Your task to perform on an android device: What is the capital of Switzerland? Image 0: 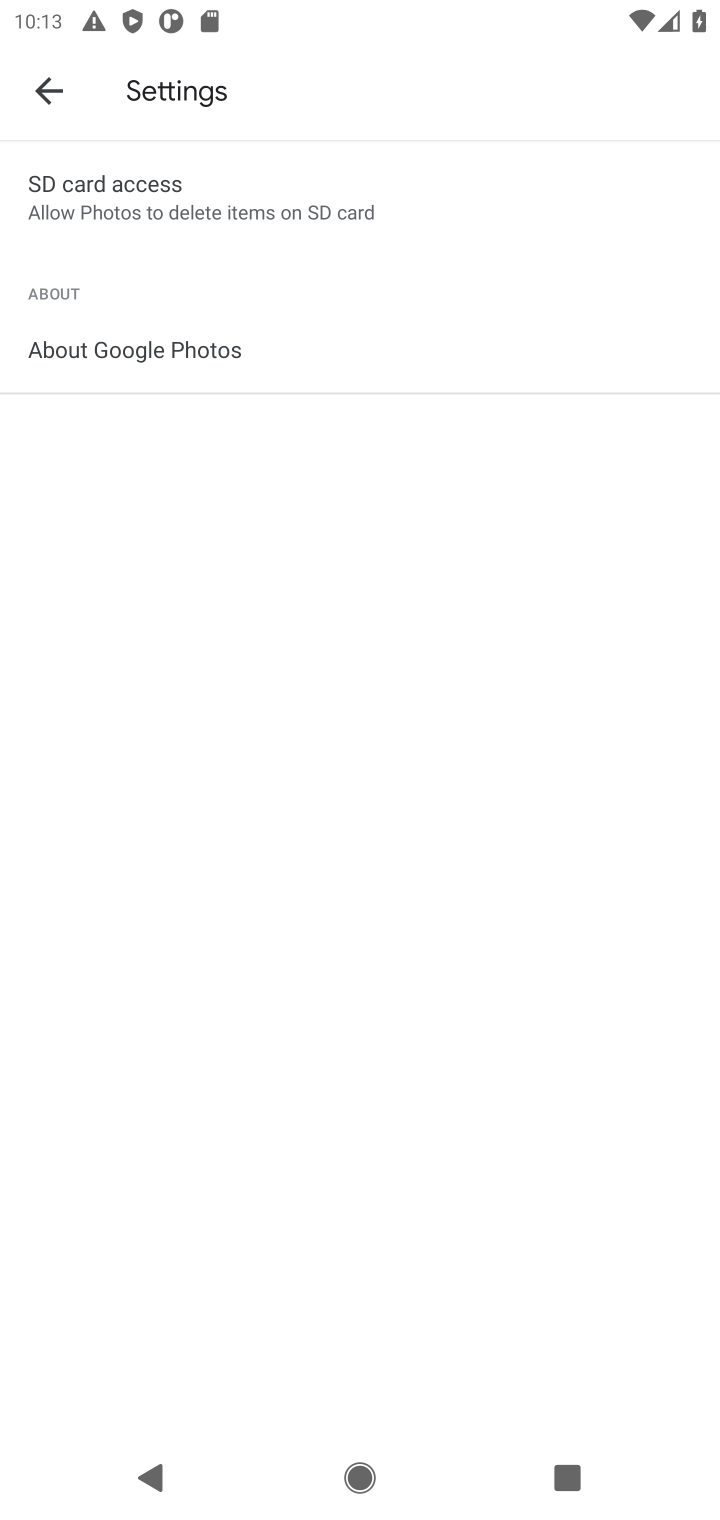
Step 0: press home button
Your task to perform on an android device: What is the capital of Switzerland? Image 1: 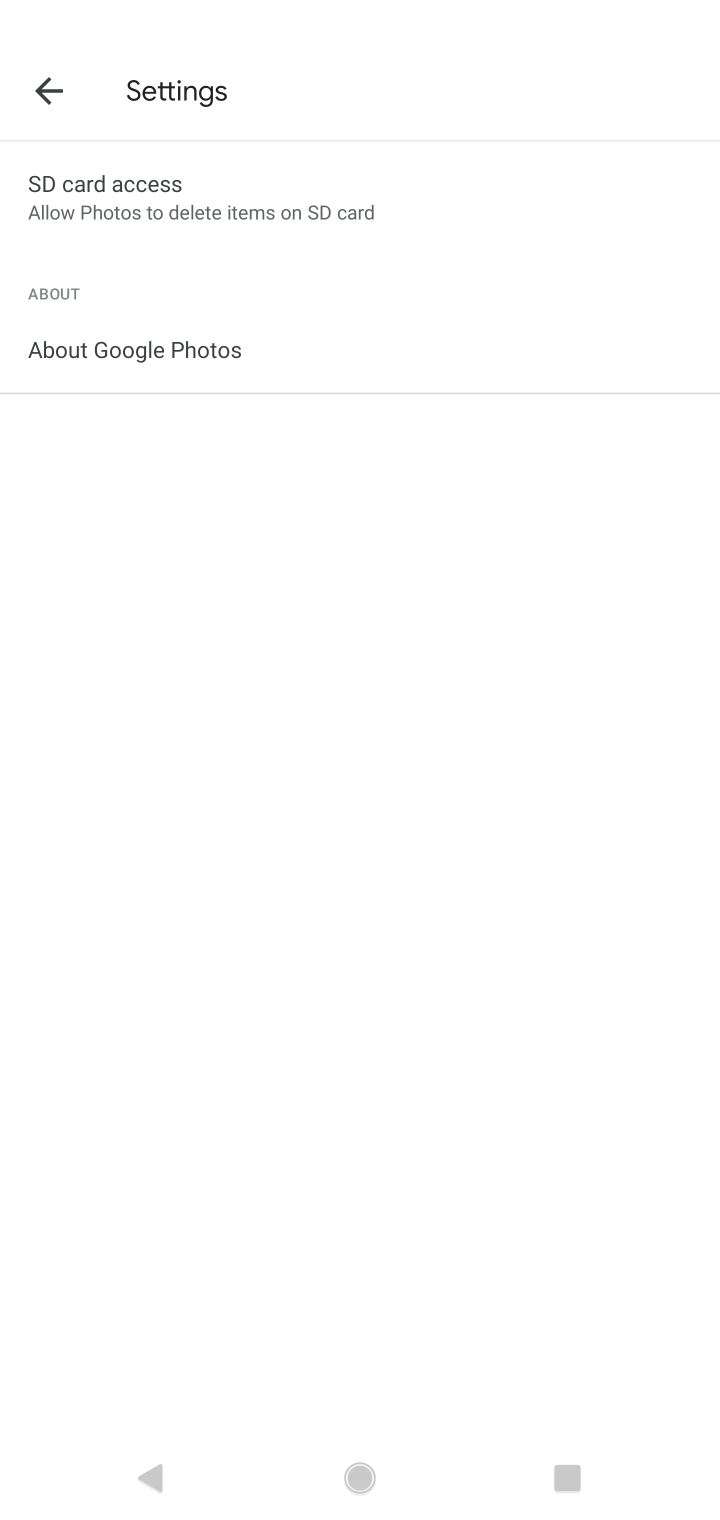
Step 1: press home button
Your task to perform on an android device: What is the capital of Switzerland? Image 2: 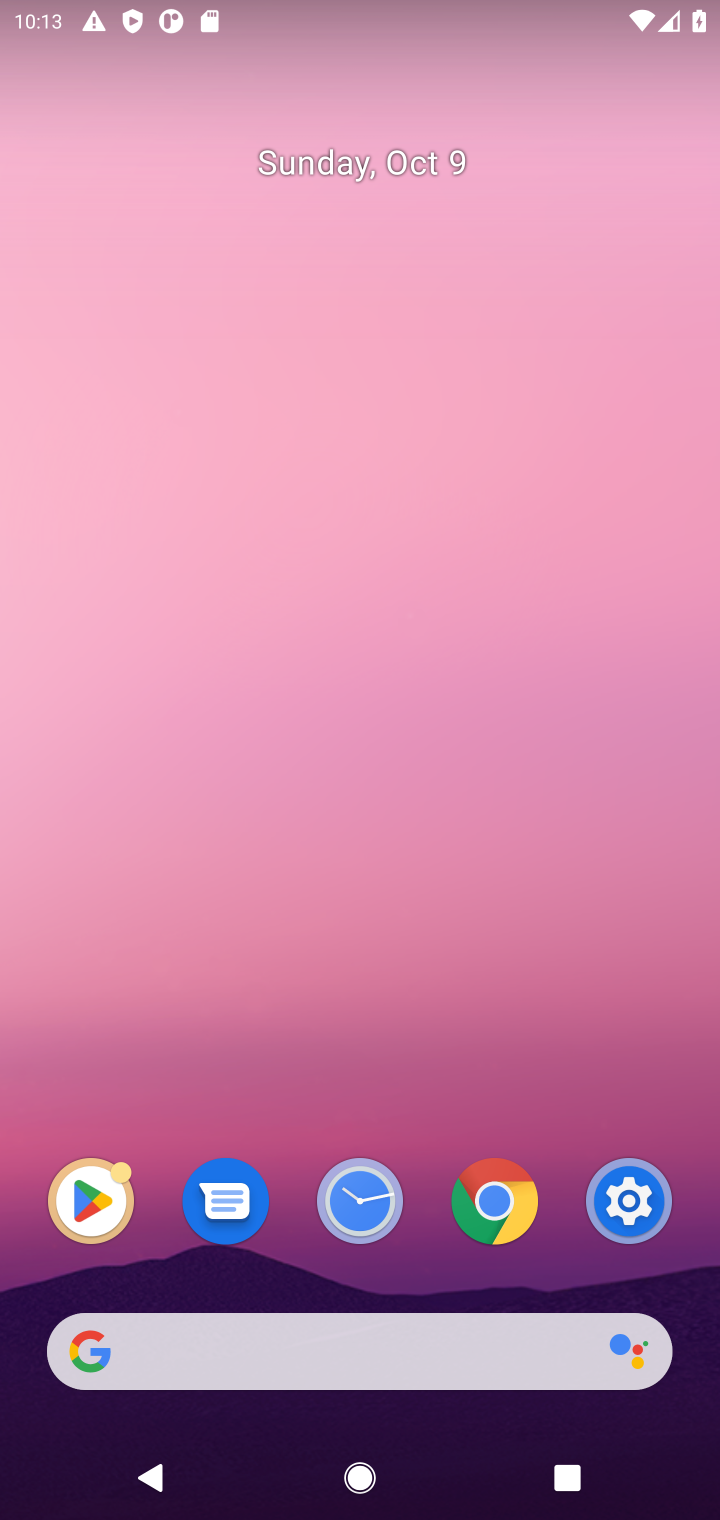
Step 2: click (498, 1203)
Your task to perform on an android device: What is the capital of Switzerland? Image 3: 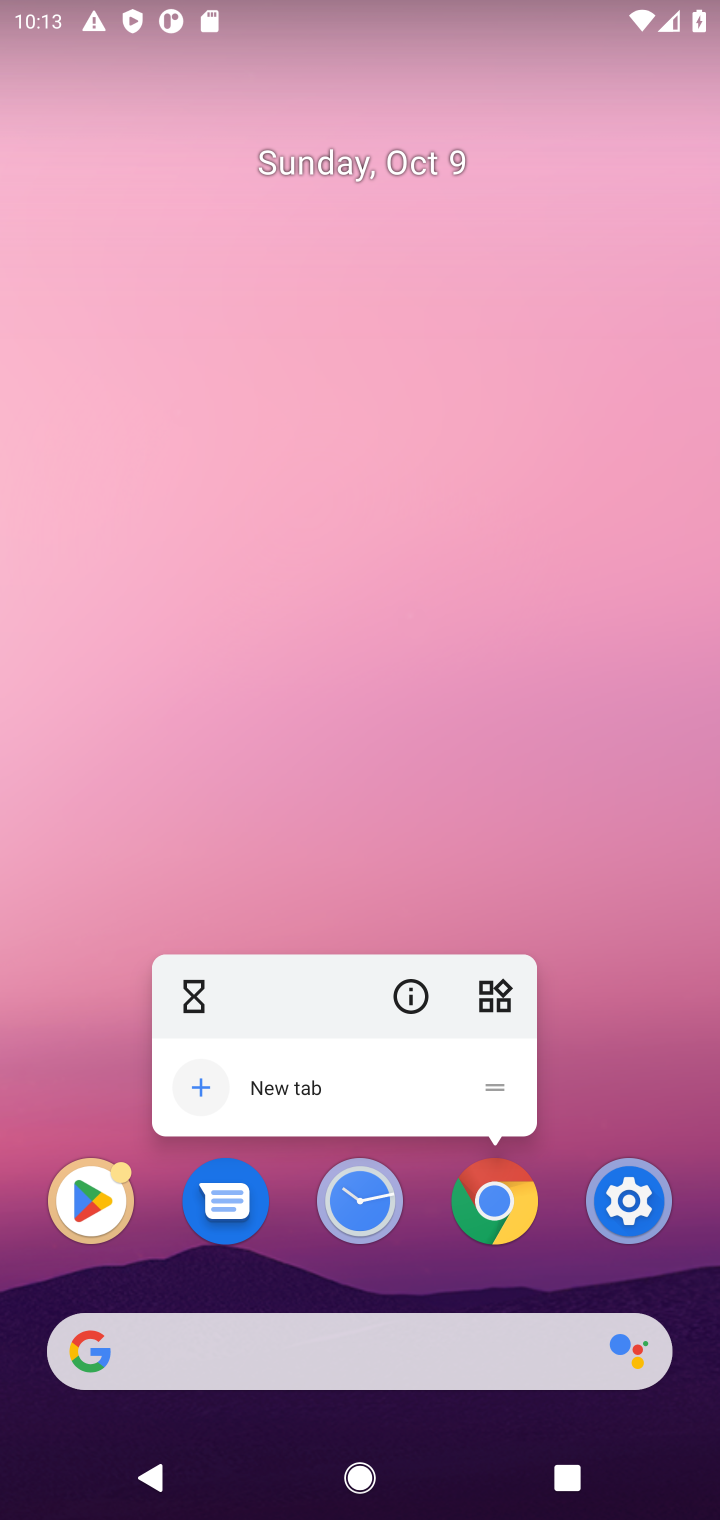
Step 3: click (498, 1203)
Your task to perform on an android device: What is the capital of Switzerland? Image 4: 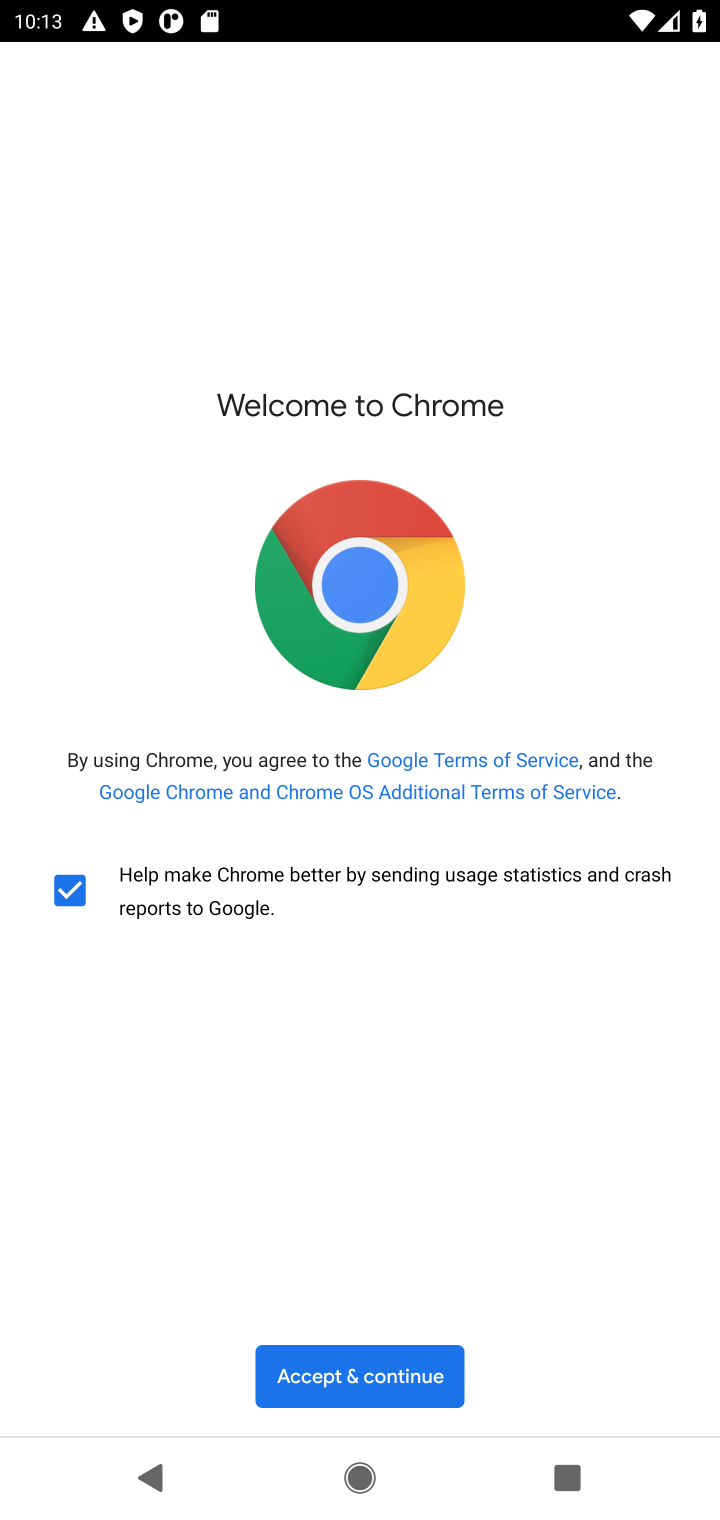
Step 4: click (343, 1392)
Your task to perform on an android device: What is the capital of Switzerland? Image 5: 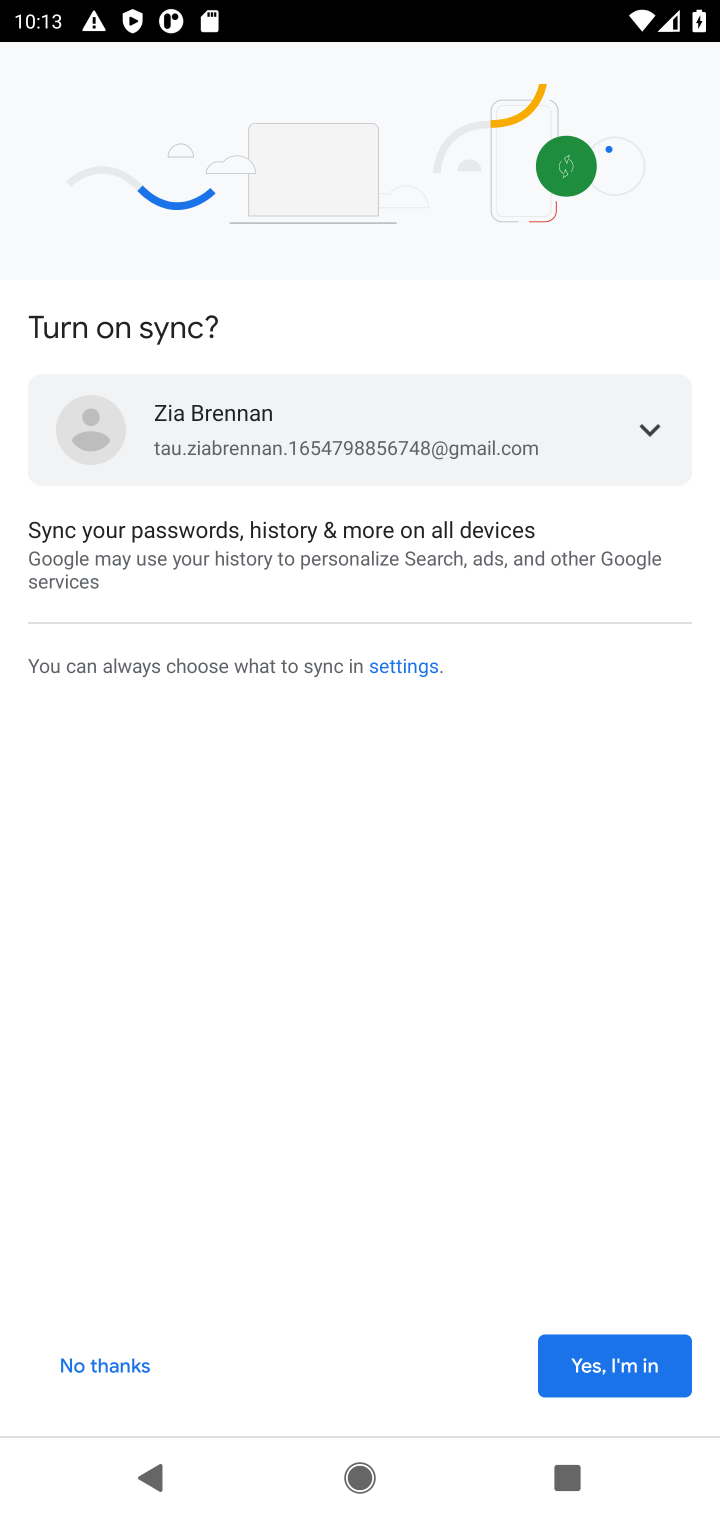
Step 5: click (619, 1364)
Your task to perform on an android device: What is the capital of Switzerland? Image 6: 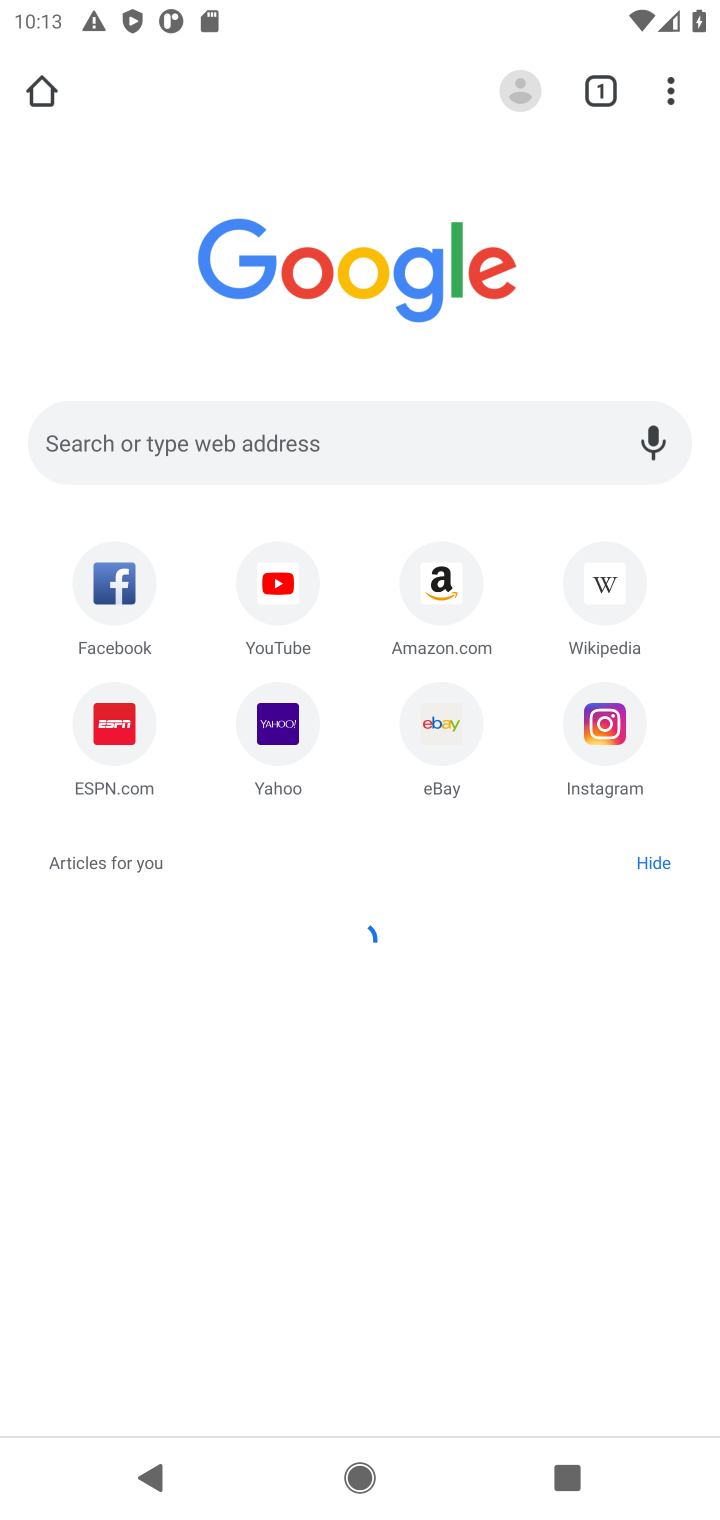
Step 6: click (451, 445)
Your task to perform on an android device: What is the capital of Switzerland? Image 7: 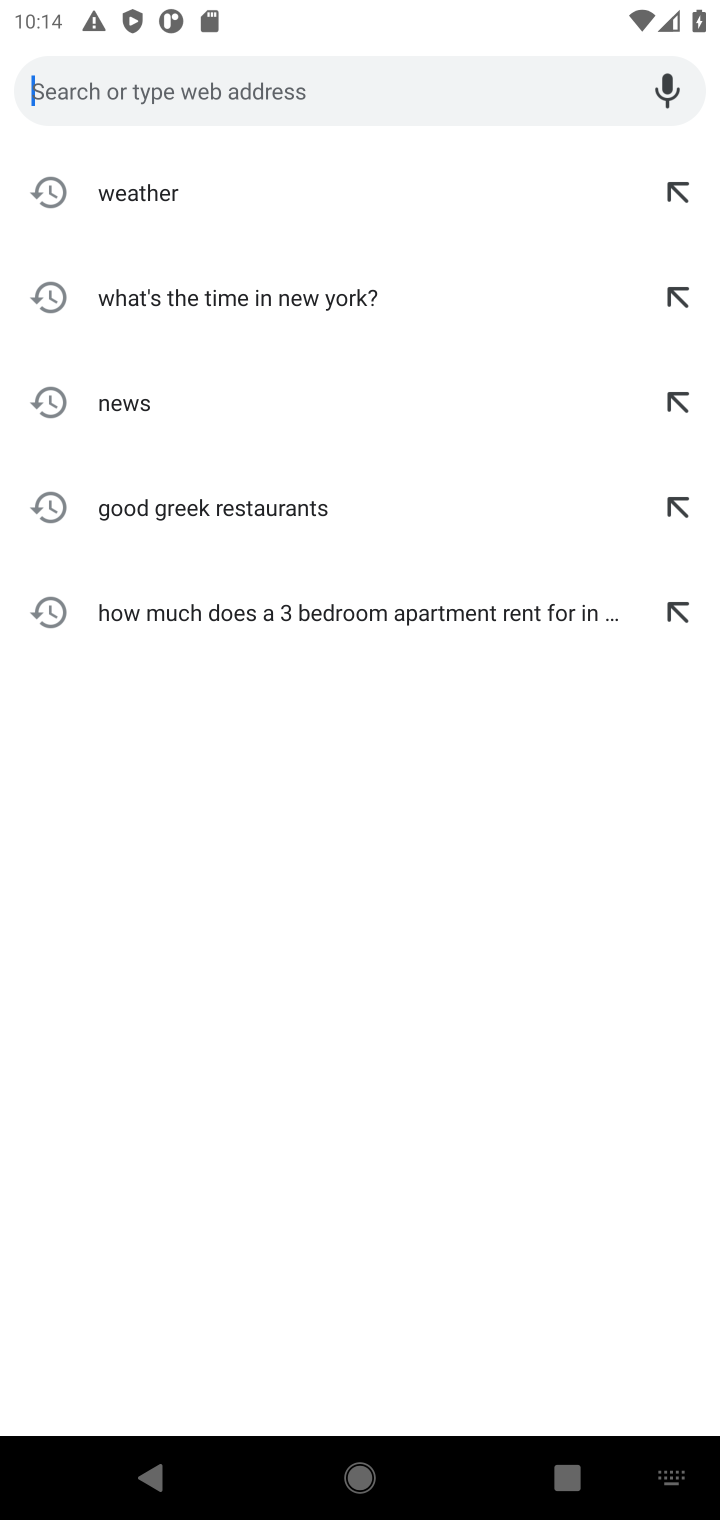
Step 7: type "capital of switzerland ?"
Your task to perform on an android device: What is the capital of Switzerland? Image 8: 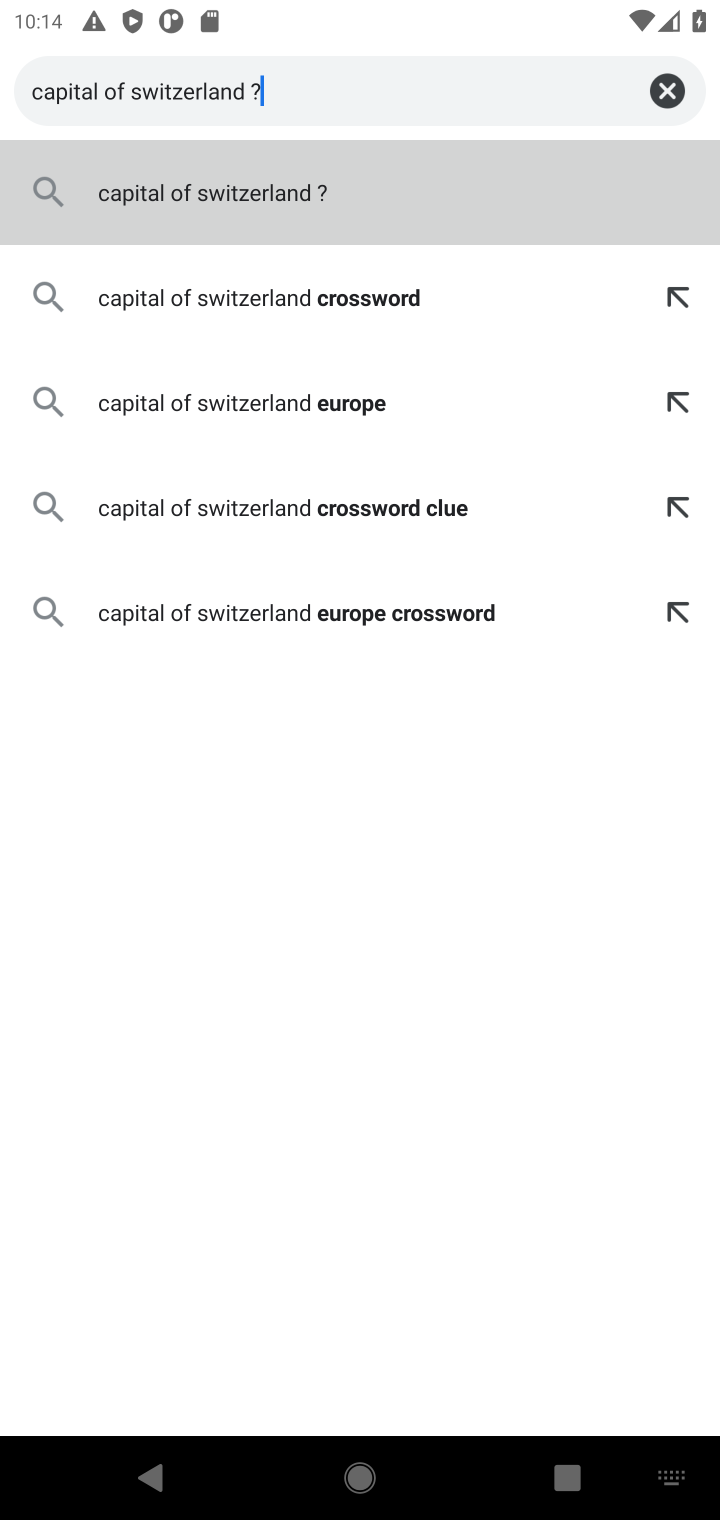
Step 8: click (389, 208)
Your task to perform on an android device: What is the capital of Switzerland? Image 9: 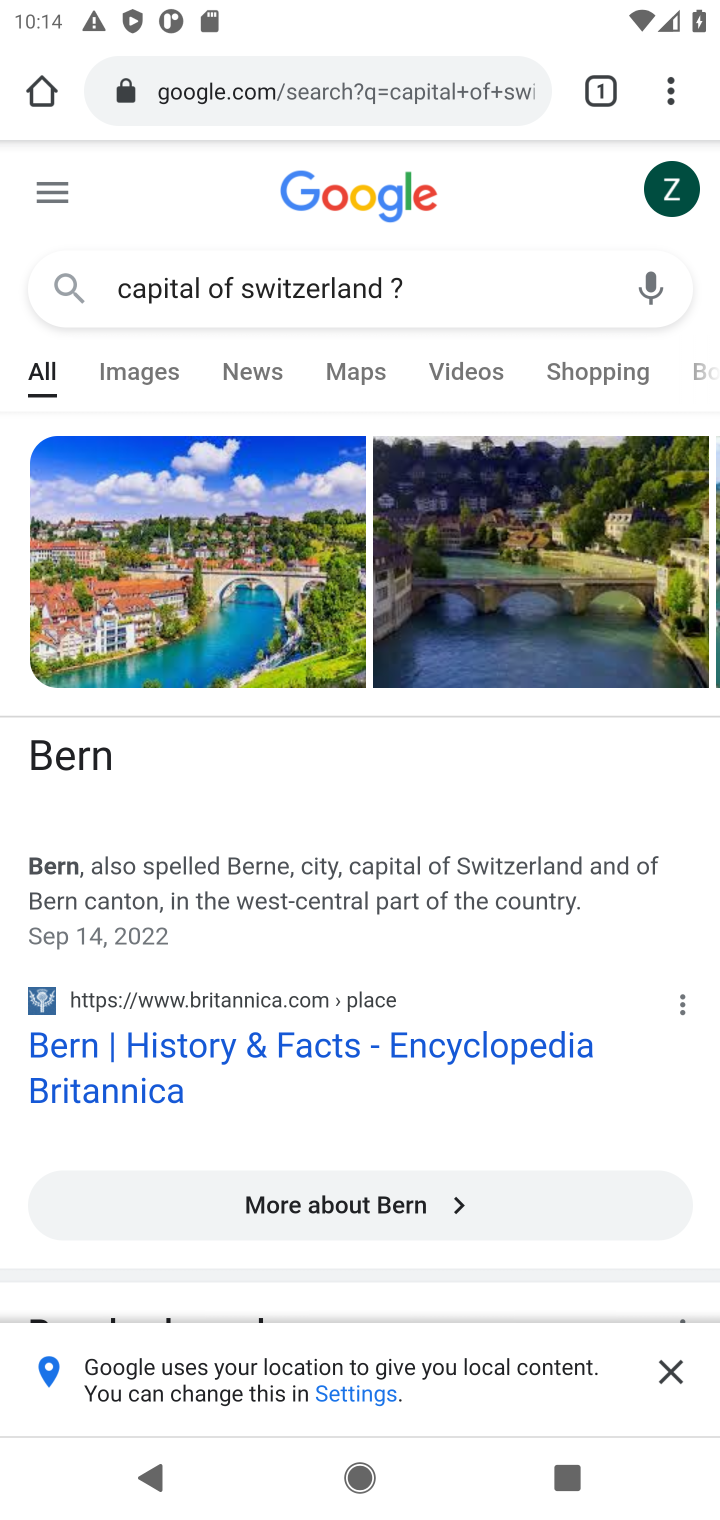
Step 9: task complete